Your task to perform on an android device: Play the last video I watched on Youtube Image 0: 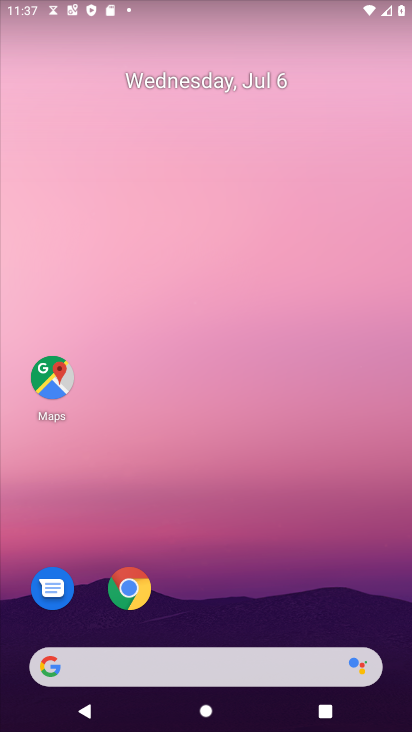
Step 0: drag from (249, 589) to (268, 178)
Your task to perform on an android device: Play the last video I watched on Youtube Image 1: 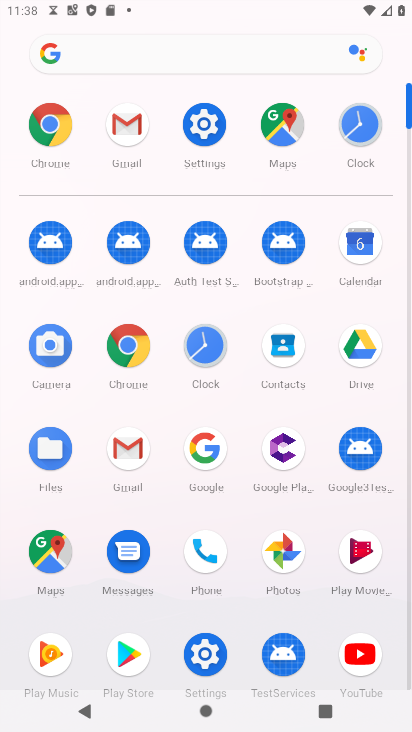
Step 1: click (351, 656)
Your task to perform on an android device: Play the last video I watched on Youtube Image 2: 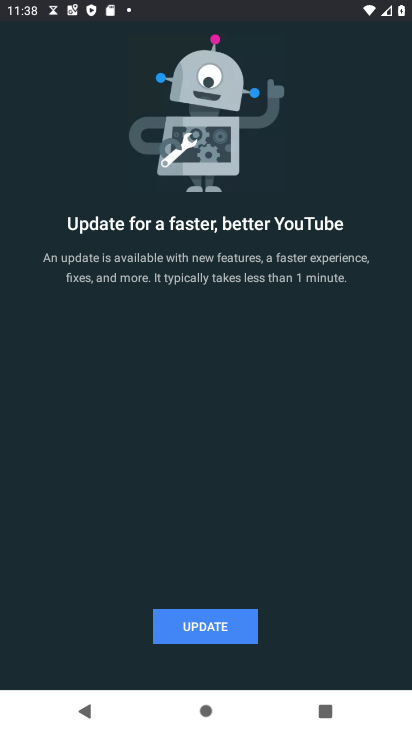
Step 2: task complete